Your task to perform on an android device: Open the map Image 0: 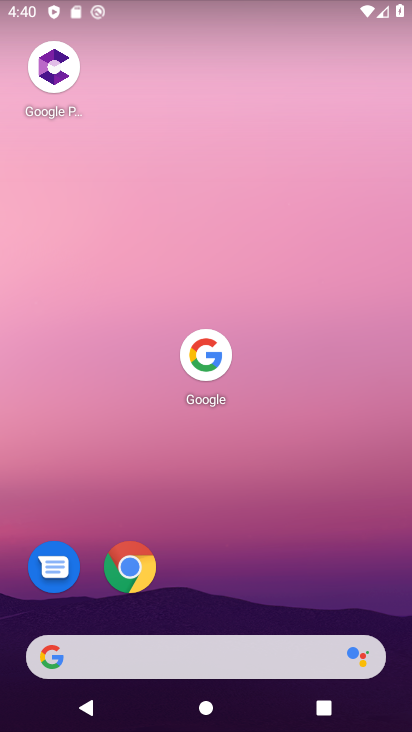
Step 0: drag from (225, 597) to (290, 43)
Your task to perform on an android device: Open the map Image 1: 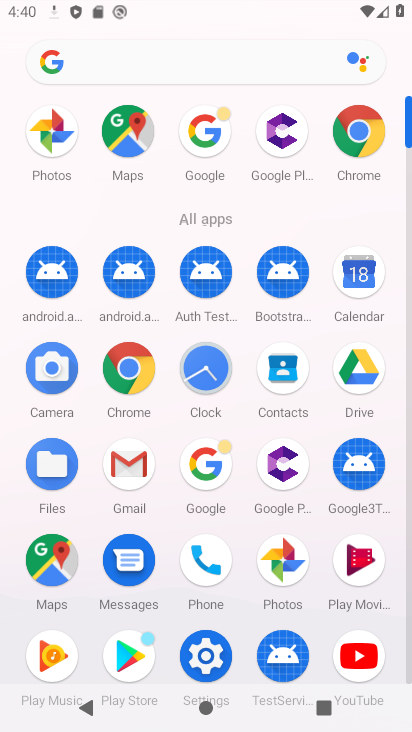
Step 1: click (127, 141)
Your task to perform on an android device: Open the map Image 2: 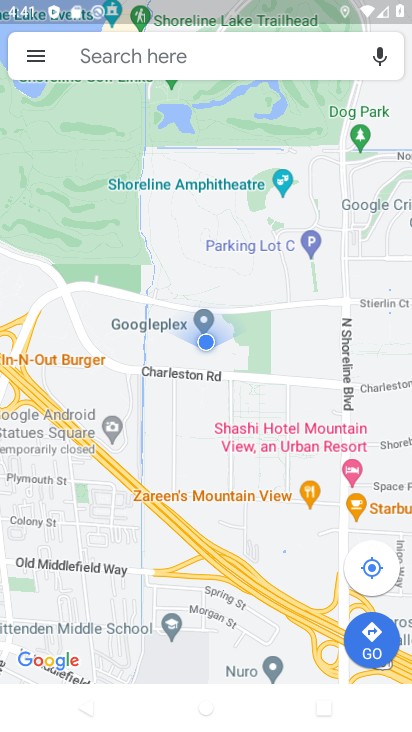
Step 2: task complete